Your task to perform on an android device: turn off smart reply in the gmail app Image 0: 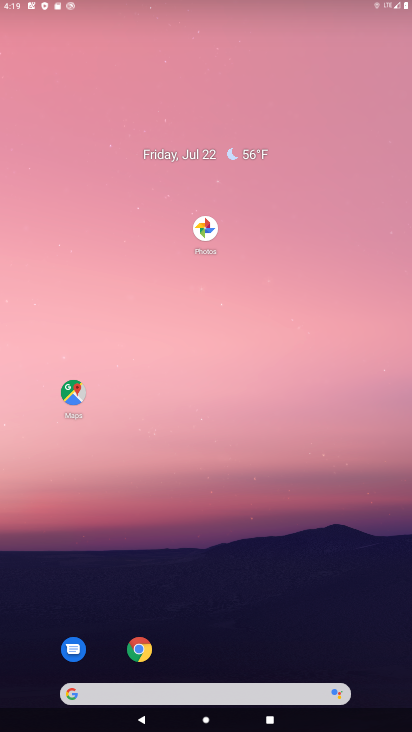
Step 0: press back button
Your task to perform on an android device: turn off smart reply in the gmail app Image 1: 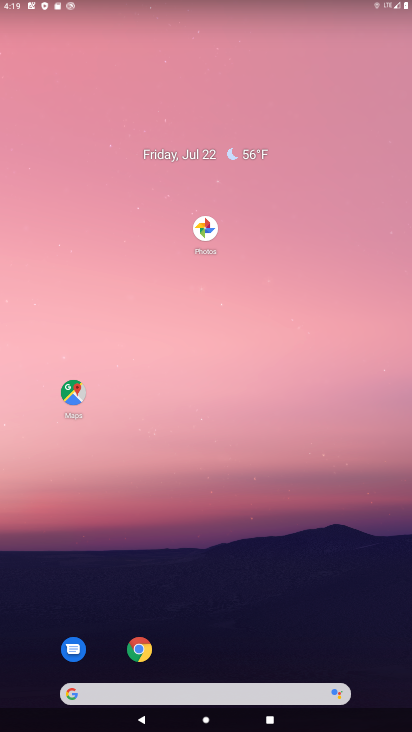
Step 1: click (203, 21)
Your task to perform on an android device: turn off smart reply in the gmail app Image 2: 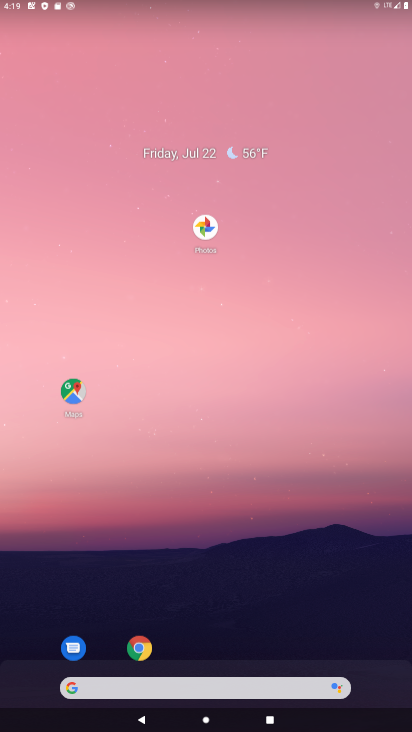
Step 2: drag from (191, 310) to (147, 105)
Your task to perform on an android device: turn off smart reply in the gmail app Image 3: 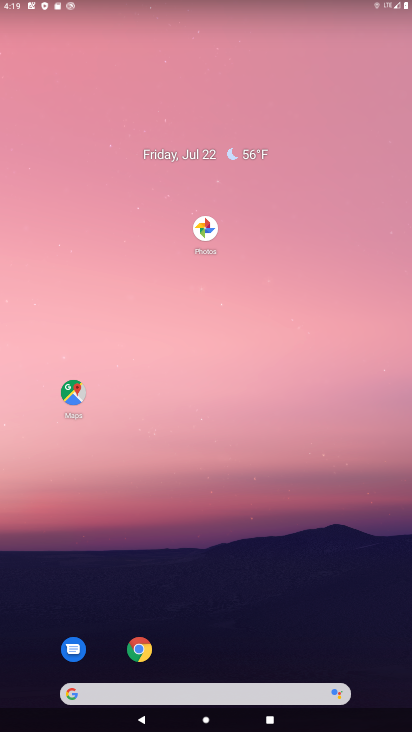
Step 3: click (183, 0)
Your task to perform on an android device: turn off smart reply in the gmail app Image 4: 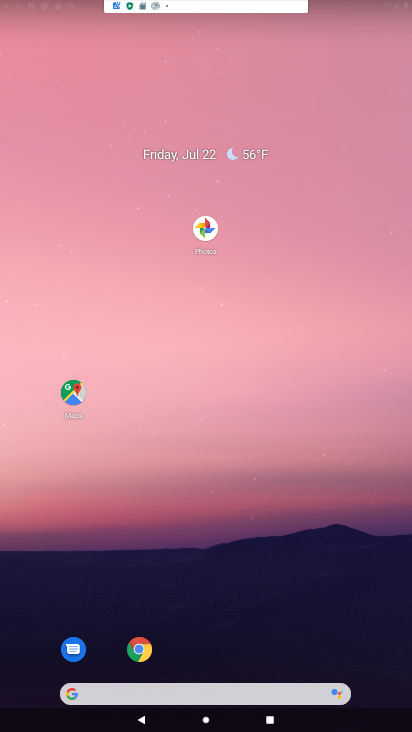
Step 4: drag from (138, 15) to (205, 71)
Your task to perform on an android device: turn off smart reply in the gmail app Image 5: 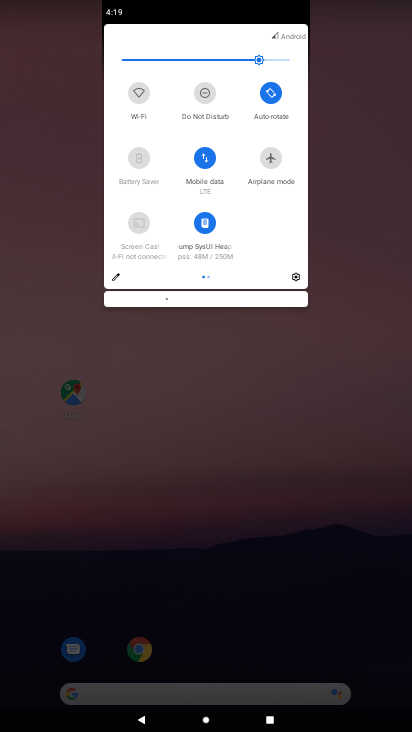
Step 5: drag from (181, 305) to (160, 81)
Your task to perform on an android device: turn off smart reply in the gmail app Image 6: 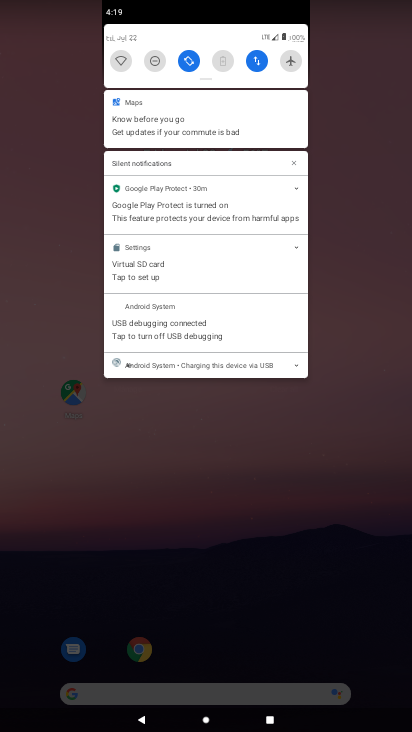
Step 6: drag from (191, 338) to (164, 75)
Your task to perform on an android device: turn off smart reply in the gmail app Image 7: 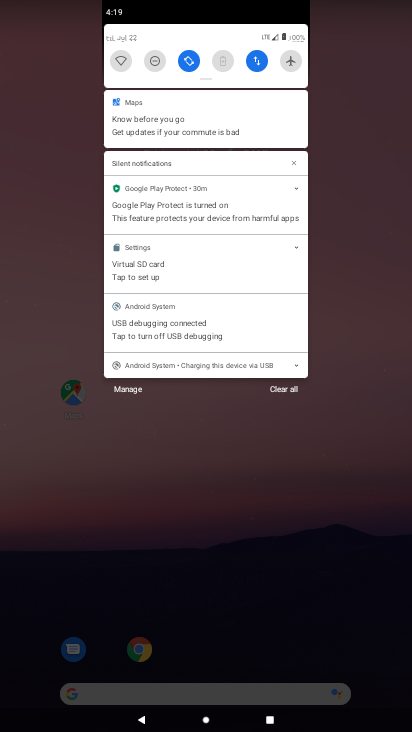
Step 7: drag from (296, 349) to (336, 89)
Your task to perform on an android device: turn off smart reply in the gmail app Image 8: 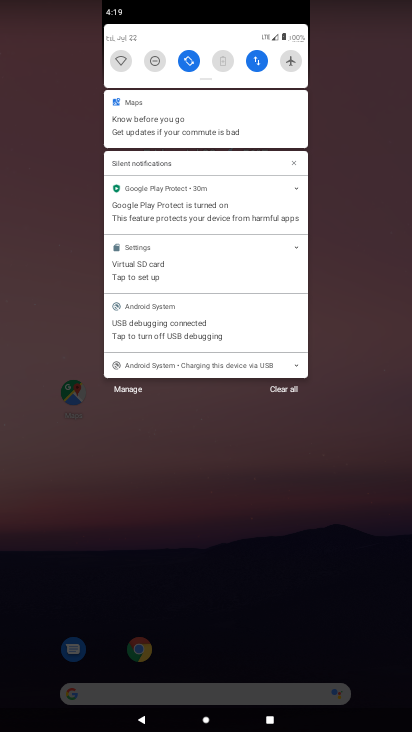
Step 8: drag from (338, 520) to (338, 96)
Your task to perform on an android device: turn off smart reply in the gmail app Image 9: 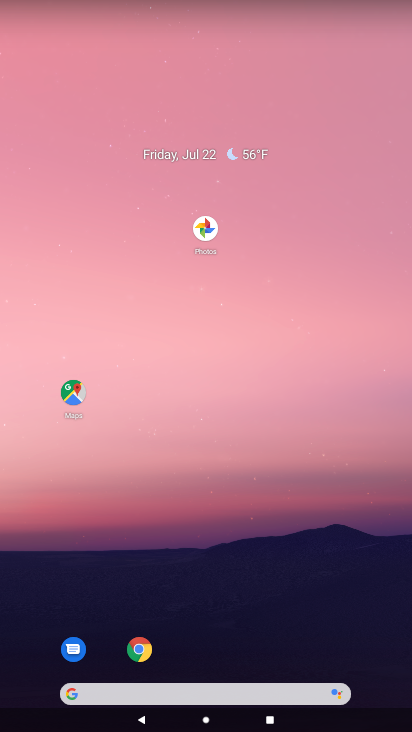
Step 9: click (345, 254)
Your task to perform on an android device: turn off smart reply in the gmail app Image 10: 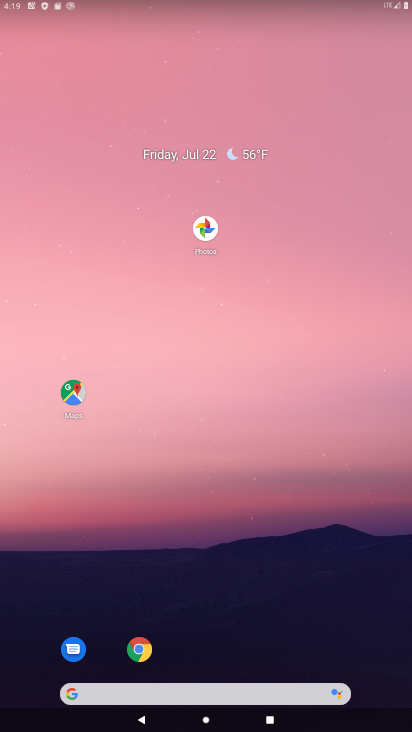
Step 10: click (345, 269)
Your task to perform on an android device: turn off smart reply in the gmail app Image 11: 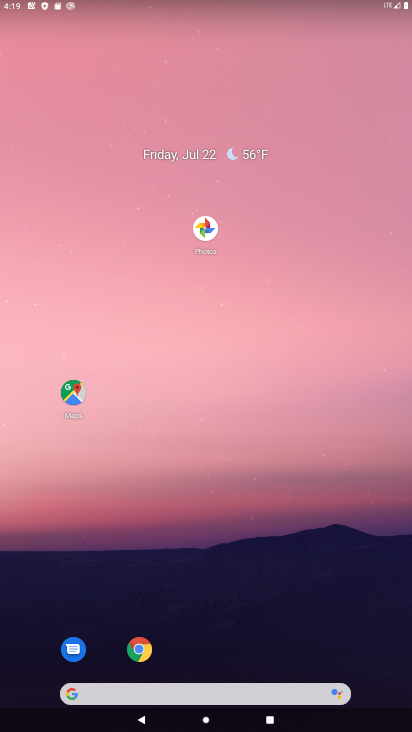
Step 11: click (346, 270)
Your task to perform on an android device: turn off smart reply in the gmail app Image 12: 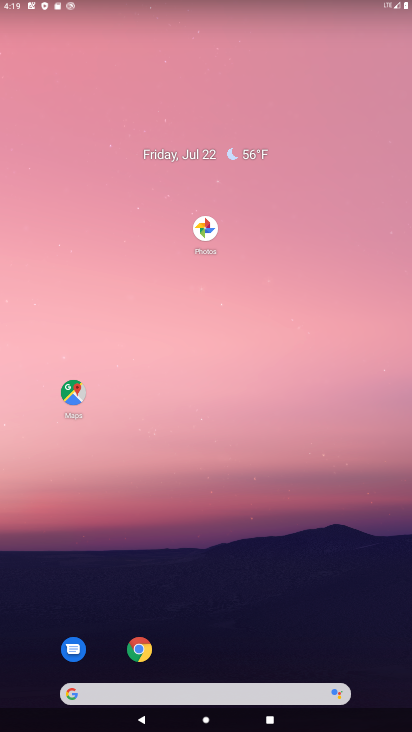
Step 12: drag from (243, 368) to (186, 2)
Your task to perform on an android device: turn off smart reply in the gmail app Image 13: 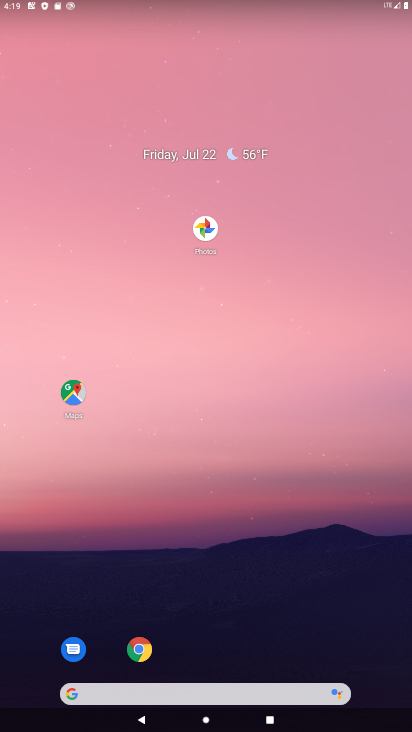
Step 13: drag from (165, 58) to (165, 4)
Your task to perform on an android device: turn off smart reply in the gmail app Image 14: 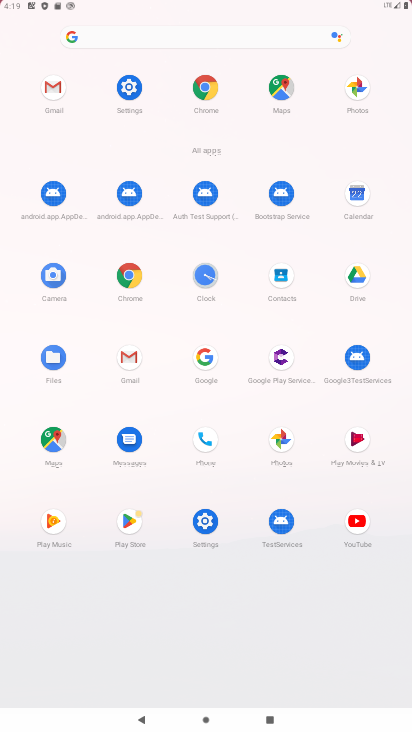
Step 14: click (137, 156)
Your task to perform on an android device: turn off smart reply in the gmail app Image 15: 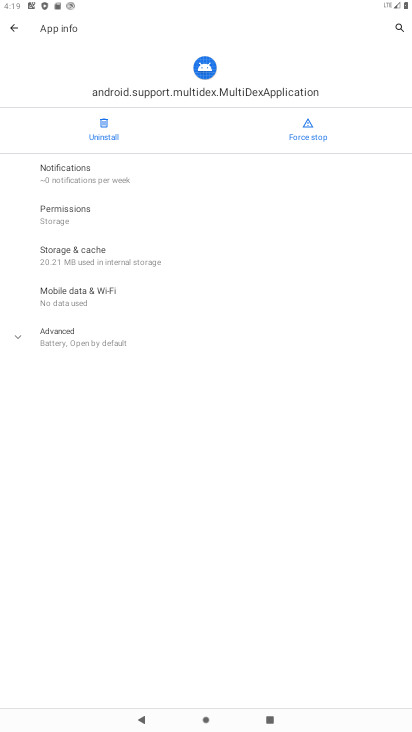
Step 15: click (10, 28)
Your task to perform on an android device: turn off smart reply in the gmail app Image 16: 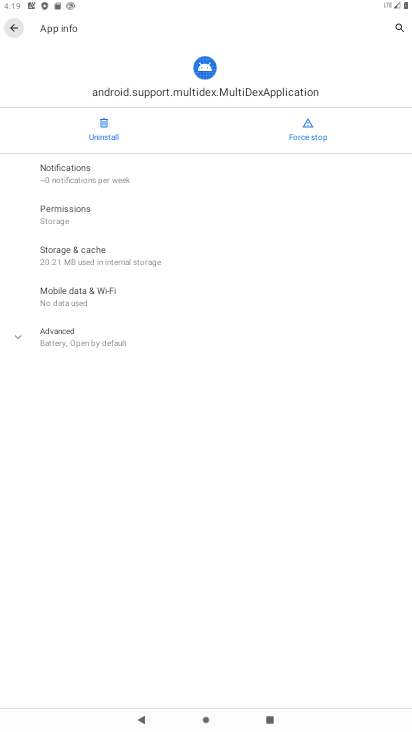
Step 16: click (6, 22)
Your task to perform on an android device: turn off smart reply in the gmail app Image 17: 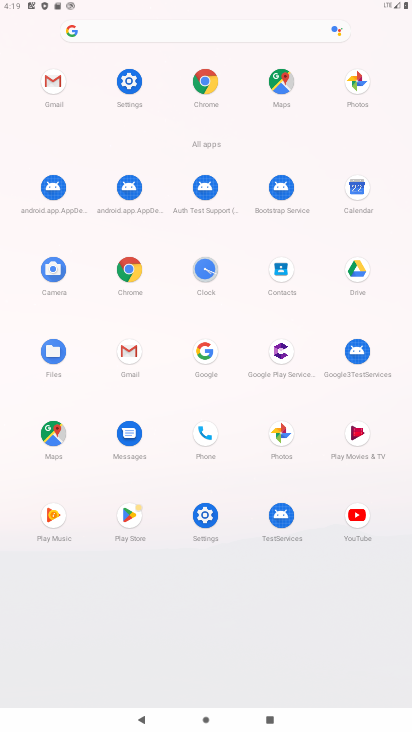
Step 17: click (127, 348)
Your task to perform on an android device: turn off smart reply in the gmail app Image 18: 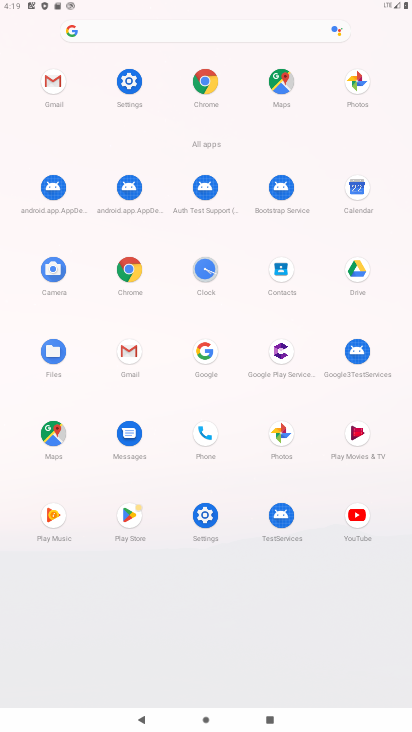
Step 18: click (127, 348)
Your task to perform on an android device: turn off smart reply in the gmail app Image 19: 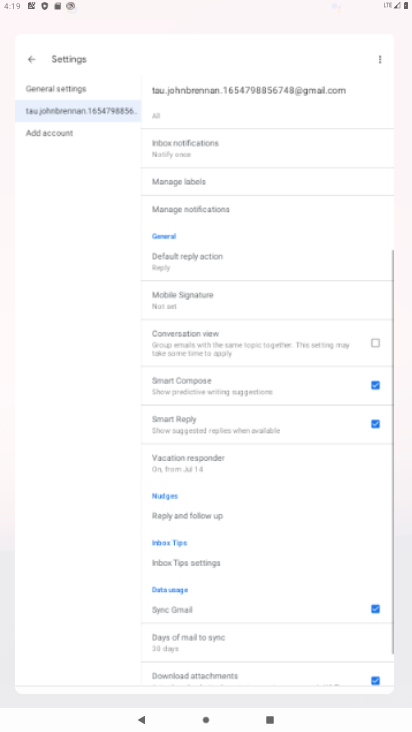
Step 19: click (127, 348)
Your task to perform on an android device: turn off smart reply in the gmail app Image 20: 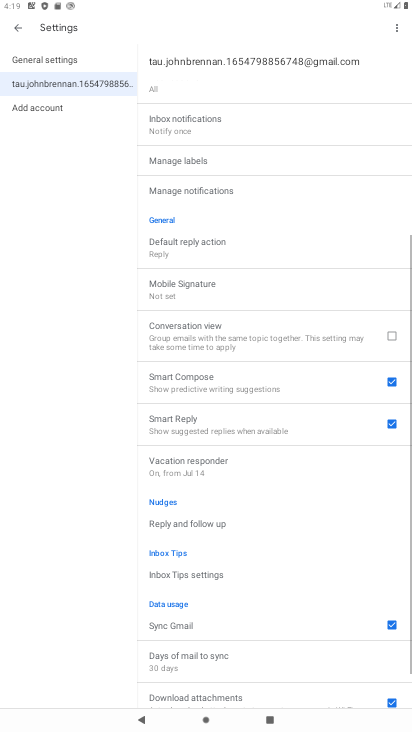
Step 20: click (127, 348)
Your task to perform on an android device: turn off smart reply in the gmail app Image 21: 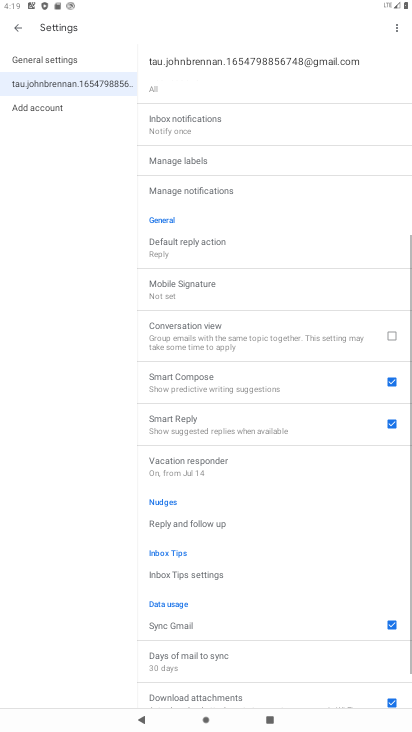
Step 21: click (127, 348)
Your task to perform on an android device: turn off smart reply in the gmail app Image 22: 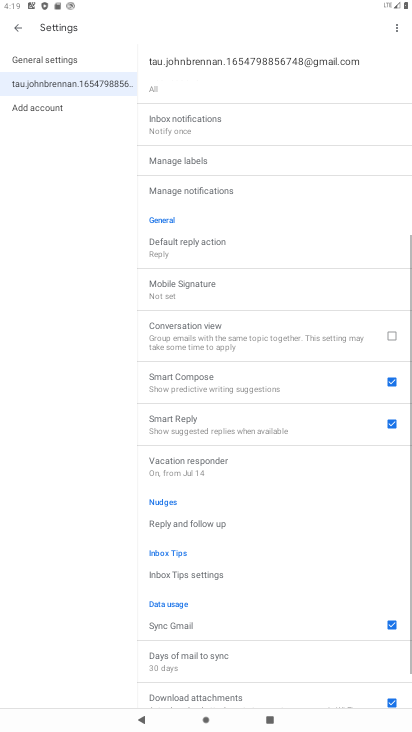
Step 22: click (127, 348)
Your task to perform on an android device: turn off smart reply in the gmail app Image 23: 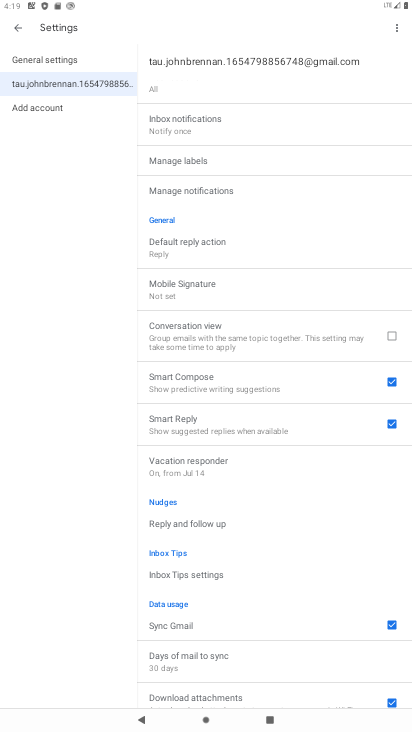
Step 23: click (73, 88)
Your task to perform on an android device: turn off smart reply in the gmail app Image 24: 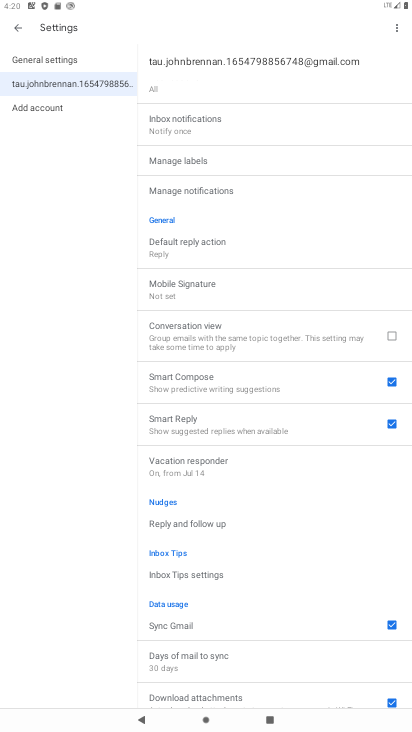
Step 24: click (391, 424)
Your task to perform on an android device: turn off smart reply in the gmail app Image 25: 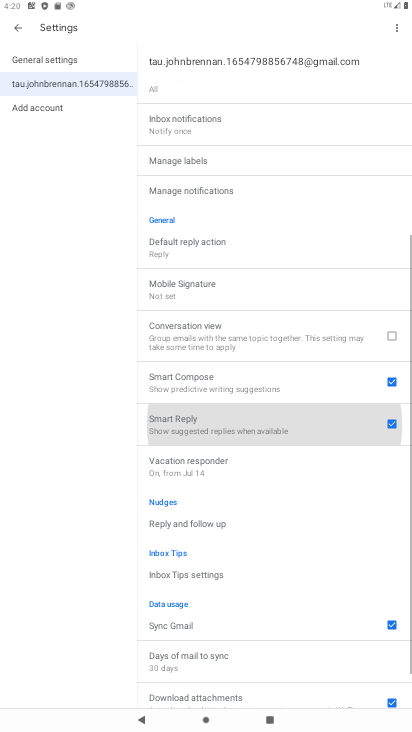
Step 25: click (392, 424)
Your task to perform on an android device: turn off smart reply in the gmail app Image 26: 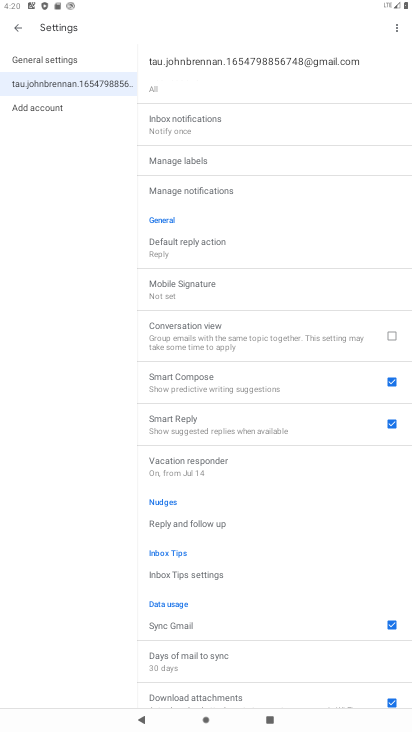
Step 26: click (387, 423)
Your task to perform on an android device: turn off smart reply in the gmail app Image 27: 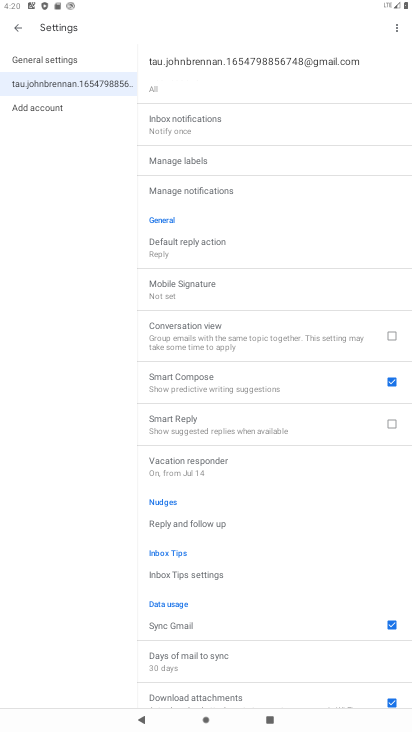
Step 27: task complete